Your task to perform on an android device: Is it going to rain this weekend? Image 0: 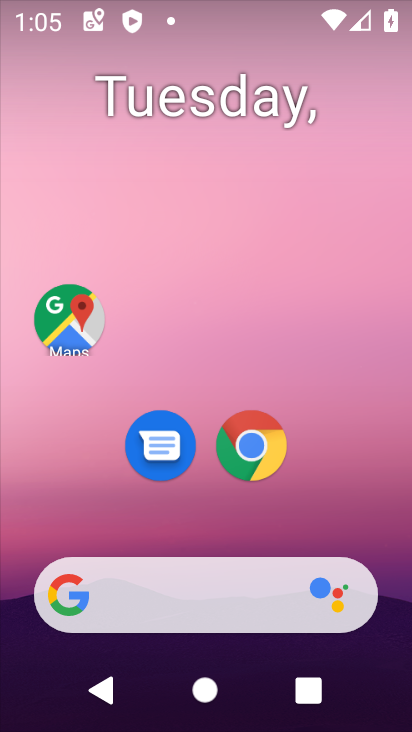
Step 0: click (77, 603)
Your task to perform on an android device: Is it going to rain this weekend? Image 1: 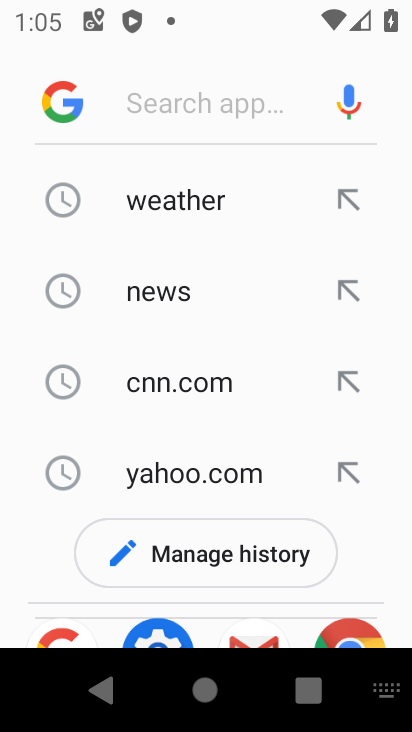
Step 1: click (66, 121)
Your task to perform on an android device: Is it going to rain this weekend? Image 2: 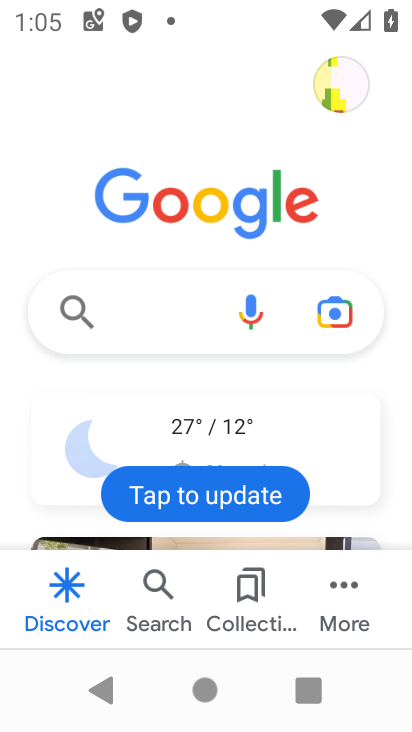
Step 2: click (160, 453)
Your task to perform on an android device: Is it going to rain this weekend? Image 3: 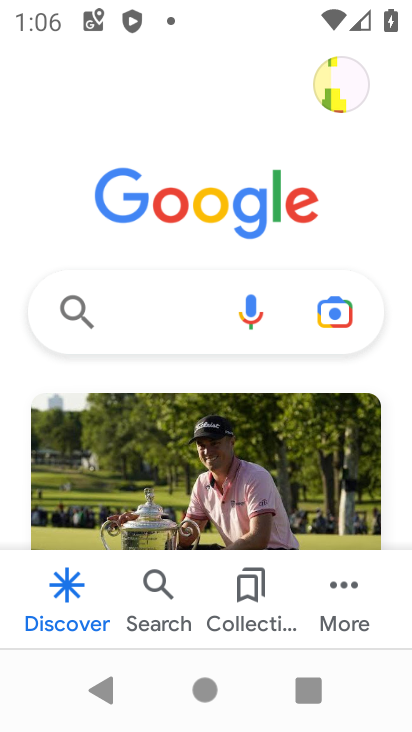
Step 3: task complete